Your task to perform on an android device: toggle notifications settings in the gmail app Image 0: 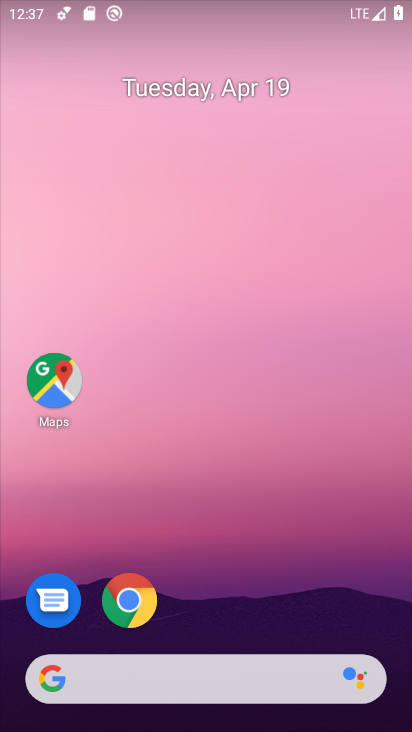
Step 0: drag from (254, 610) to (216, 152)
Your task to perform on an android device: toggle notifications settings in the gmail app Image 1: 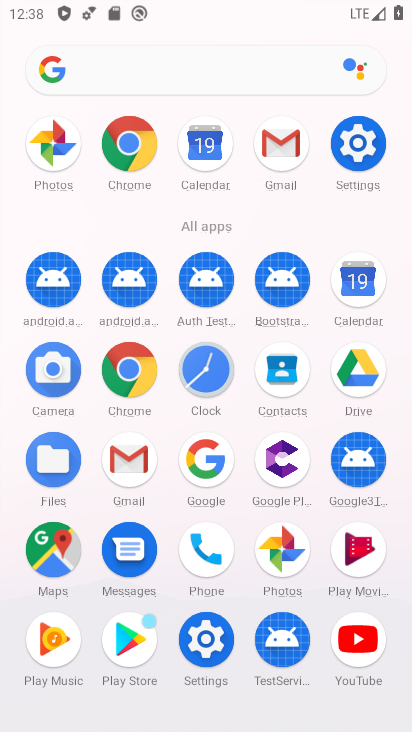
Step 1: click (274, 146)
Your task to perform on an android device: toggle notifications settings in the gmail app Image 2: 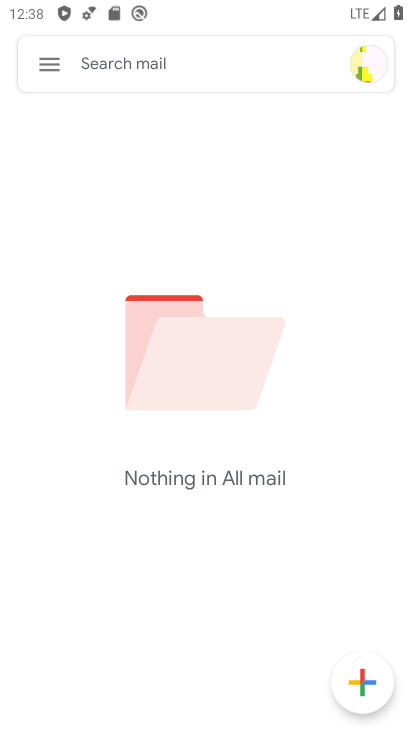
Step 2: click (50, 63)
Your task to perform on an android device: toggle notifications settings in the gmail app Image 3: 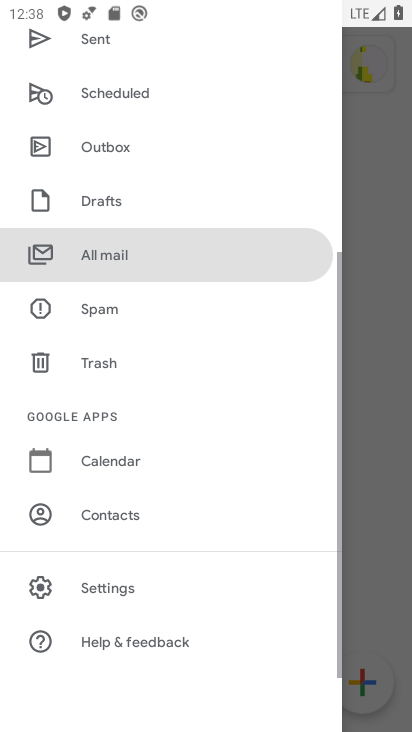
Step 3: click (120, 589)
Your task to perform on an android device: toggle notifications settings in the gmail app Image 4: 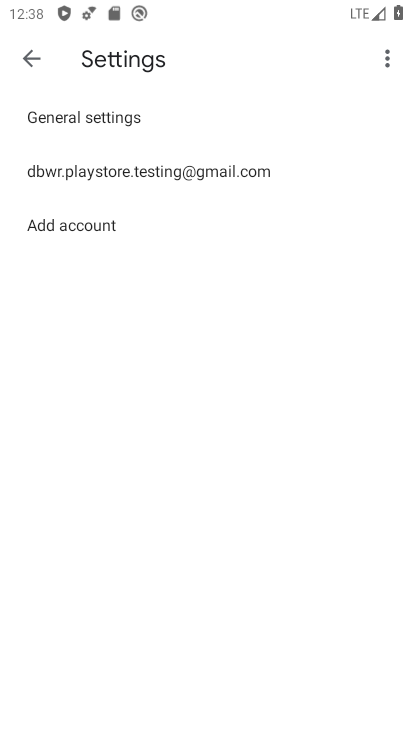
Step 4: click (165, 181)
Your task to perform on an android device: toggle notifications settings in the gmail app Image 5: 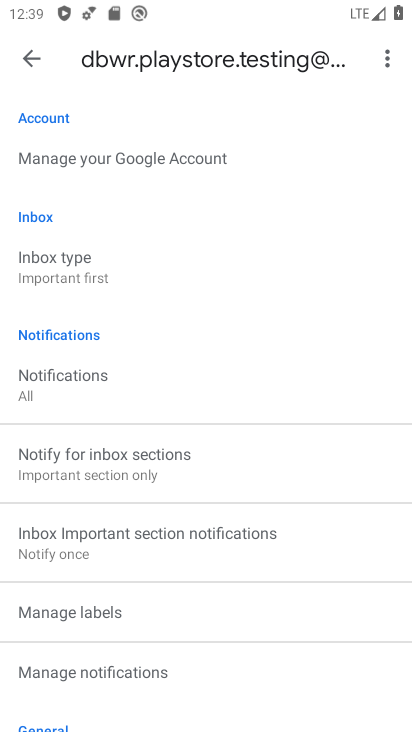
Step 5: drag from (189, 608) to (194, 224)
Your task to perform on an android device: toggle notifications settings in the gmail app Image 6: 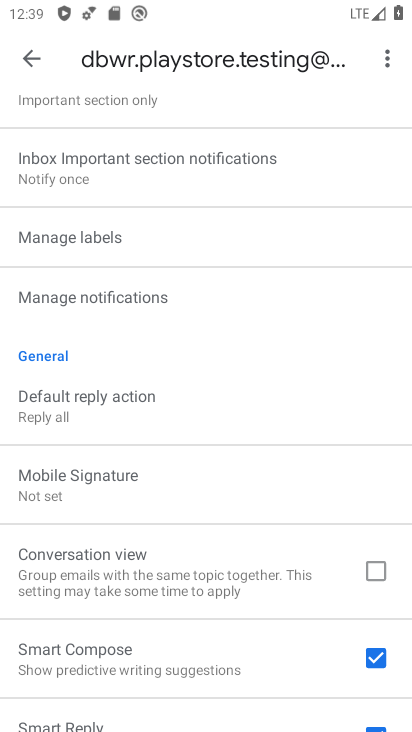
Step 6: click (161, 290)
Your task to perform on an android device: toggle notifications settings in the gmail app Image 7: 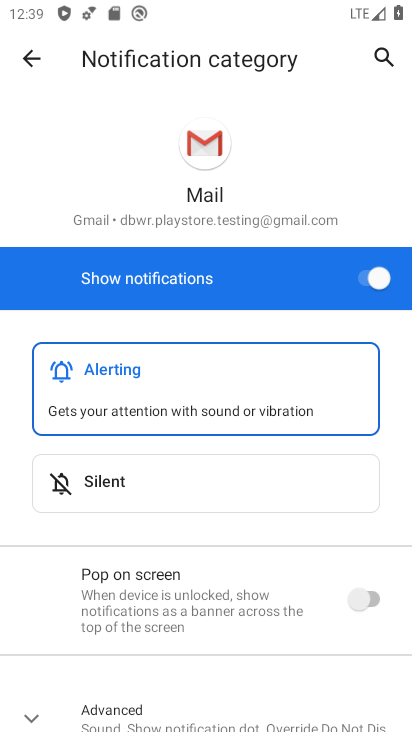
Step 7: click (337, 267)
Your task to perform on an android device: toggle notifications settings in the gmail app Image 8: 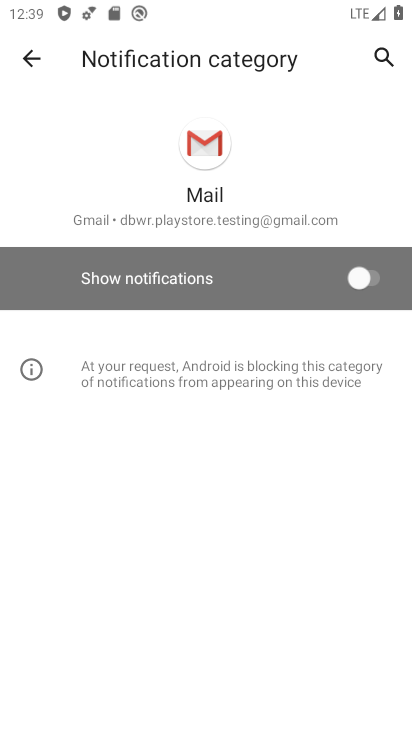
Step 8: task complete